Your task to perform on an android device: clear all cookies in the chrome app Image 0: 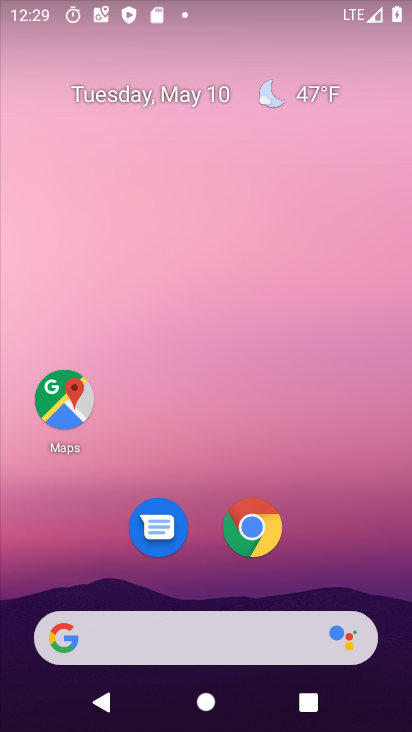
Step 0: press home button
Your task to perform on an android device: clear all cookies in the chrome app Image 1: 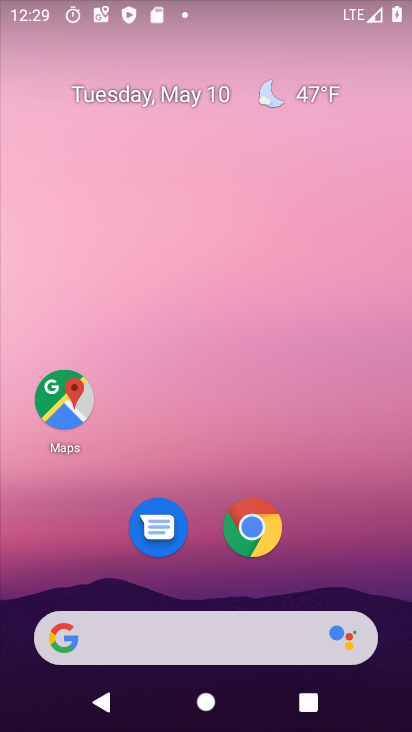
Step 1: drag from (361, 563) to (354, 156)
Your task to perform on an android device: clear all cookies in the chrome app Image 2: 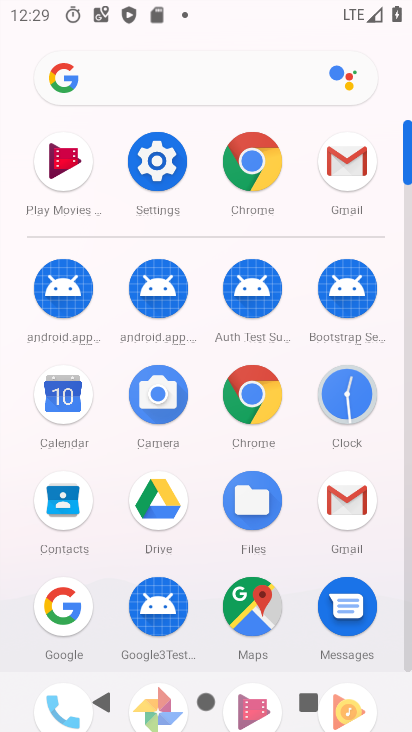
Step 2: click (270, 403)
Your task to perform on an android device: clear all cookies in the chrome app Image 3: 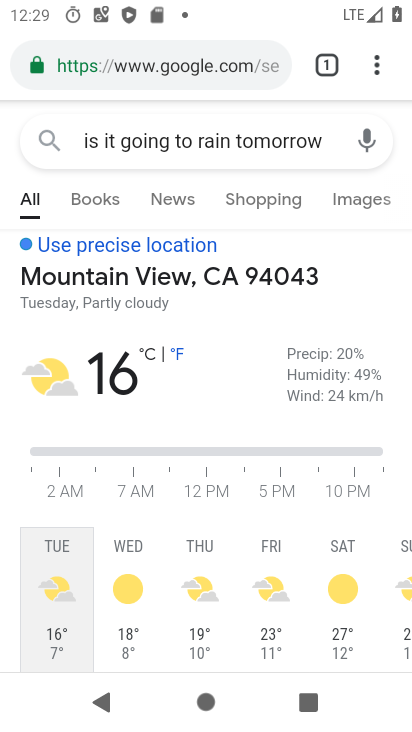
Step 3: drag from (376, 78) to (290, 236)
Your task to perform on an android device: clear all cookies in the chrome app Image 4: 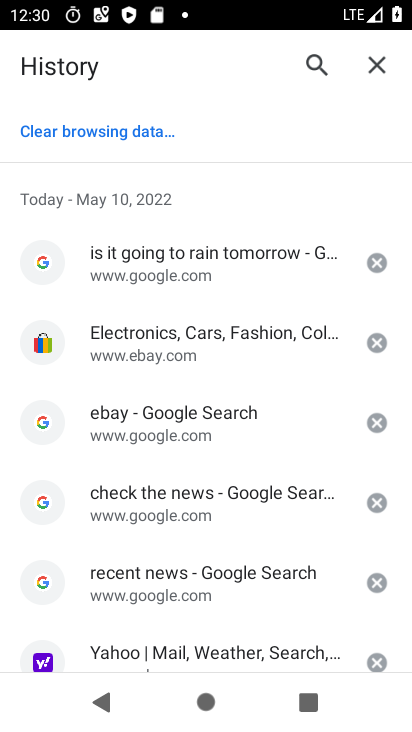
Step 4: click (124, 111)
Your task to perform on an android device: clear all cookies in the chrome app Image 5: 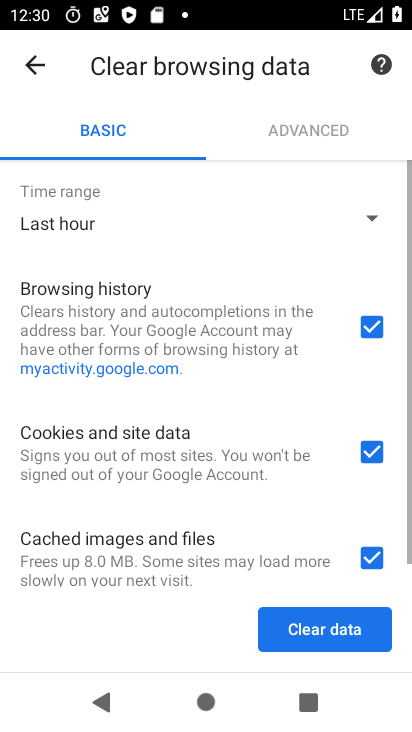
Step 5: click (373, 328)
Your task to perform on an android device: clear all cookies in the chrome app Image 6: 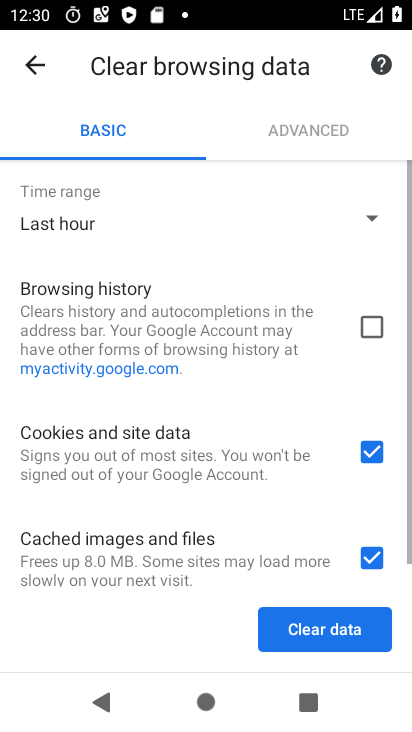
Step 6: click (376, 556)
Your task to perform on an android device: clear all cookies in the chrome app Image 7: 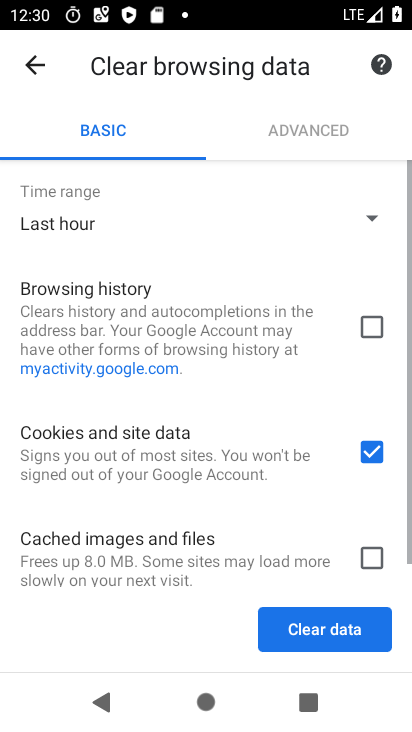
Step 7: click (330, 629)
Your task to perform on an android device: clear all cookies in the chrome app Image 8: 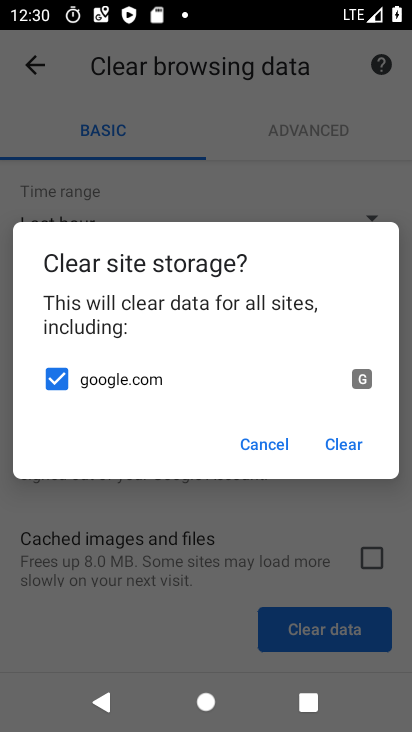
Step 8: click (341, 441)
Your task to perform on an android device: clear all cookies in the chrome app Image 9: 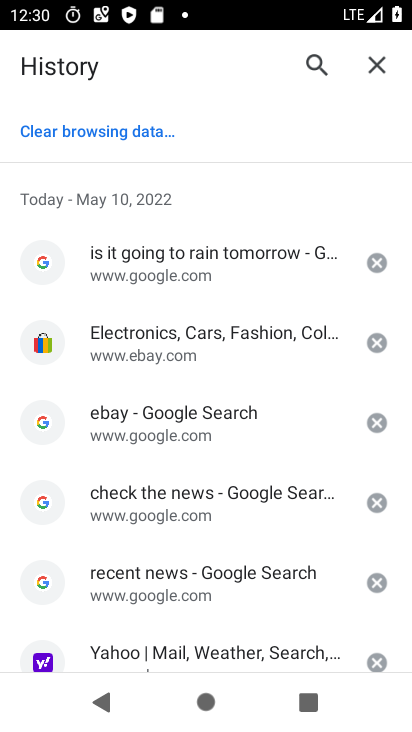
Step 9: task complete